Your task to perform on an android device: turn off smart reply in the gmail app Image 0: 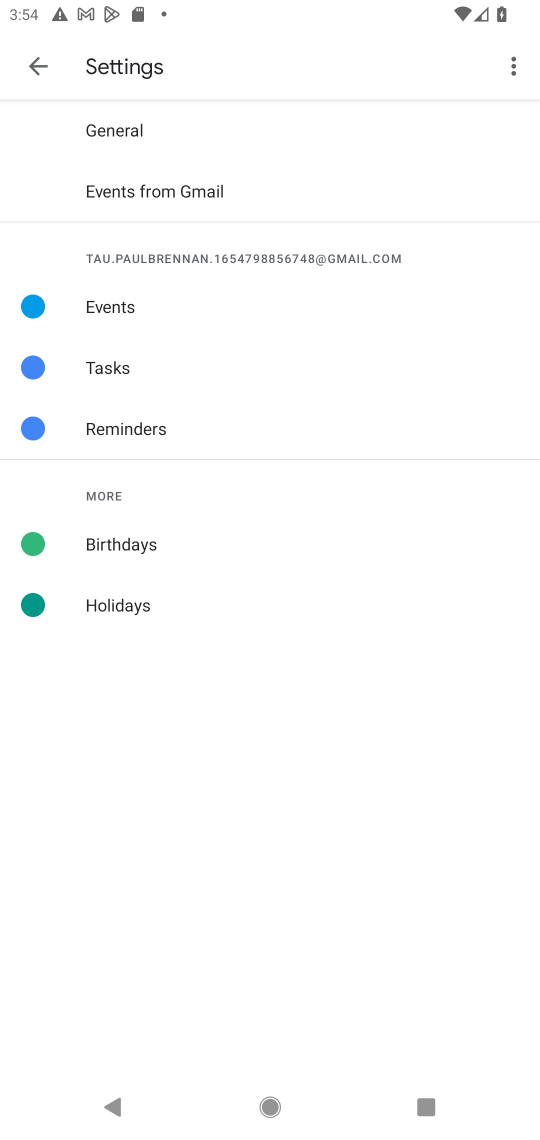
Step 0: press home button
Your task to perform on an android device: turn off smart reply in the gmail app Image 1: 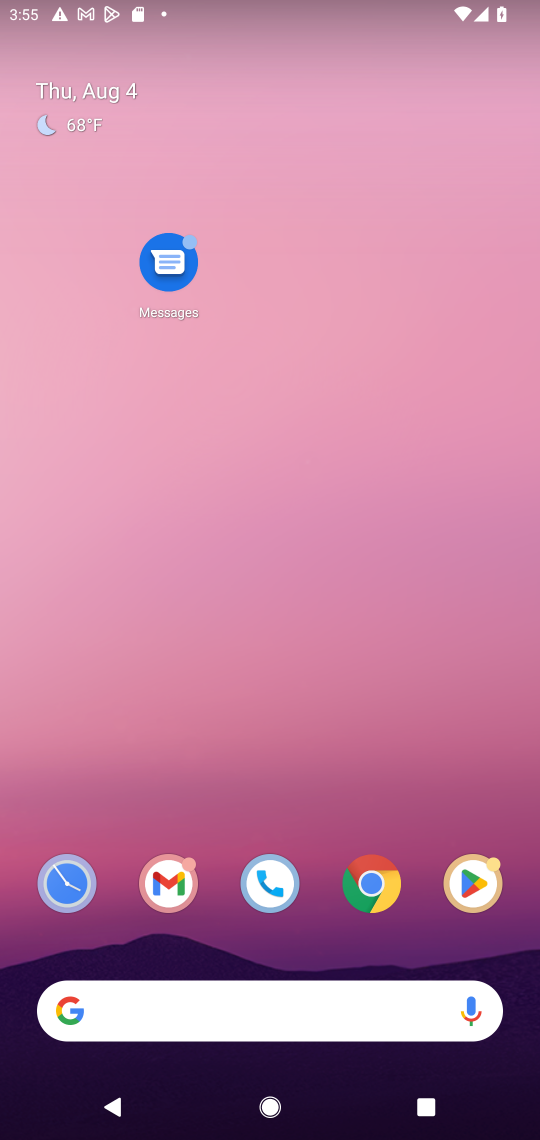
Step 1: drag from (298, 968) to (301, 82)
Your task to perform on an android device: turn off smart reply in the gmail app Image 2: 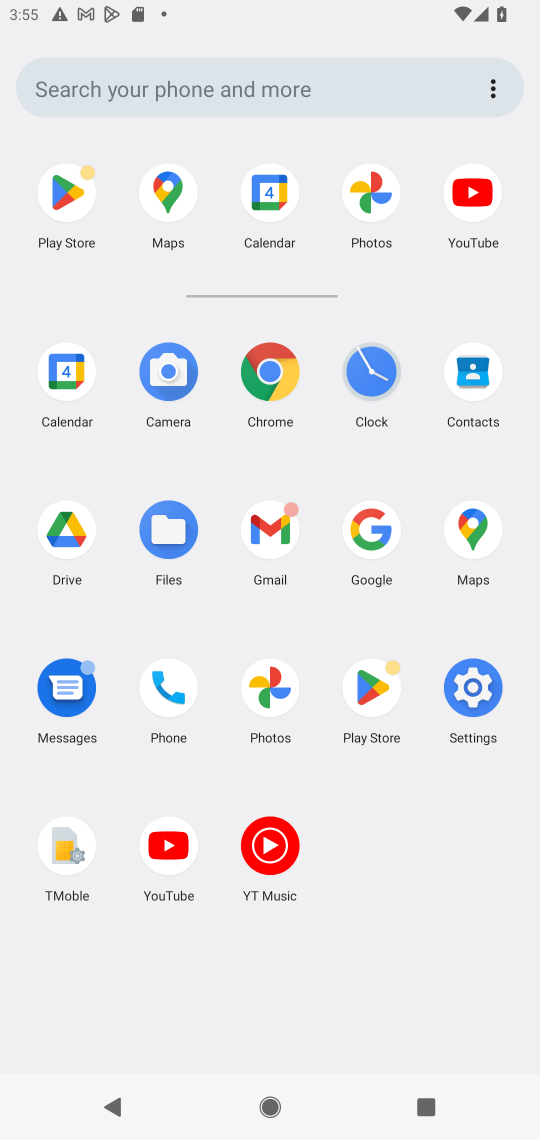
Step 2: click (271, 533)
Your task to perform on an android device: turn off smart reply in the gmail app Image 3: 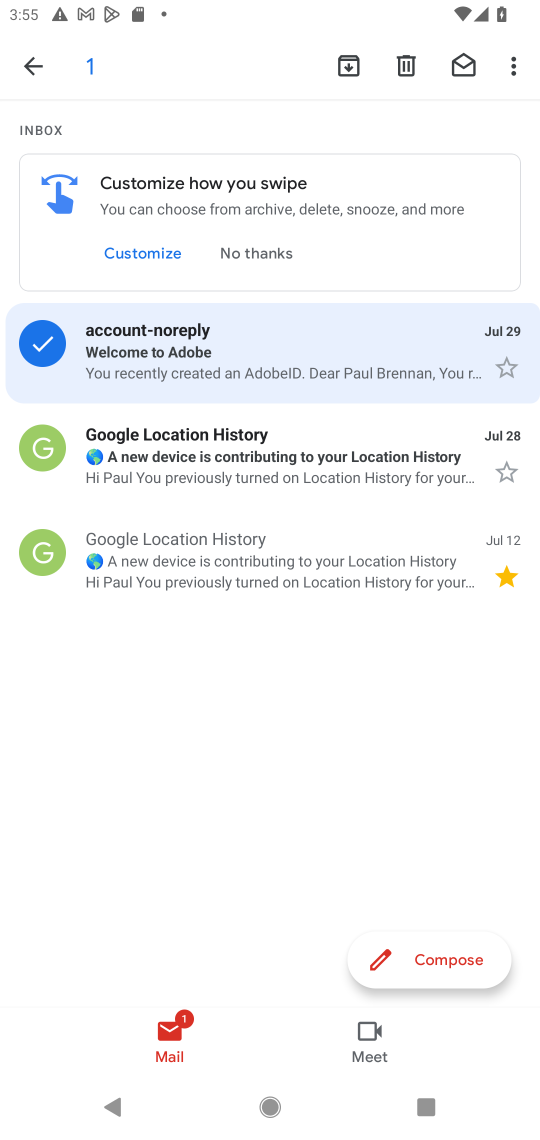
Step 3: click (31, 58)
Your task to perform on an android device: turn off smart reply in the gmail app Image 4: 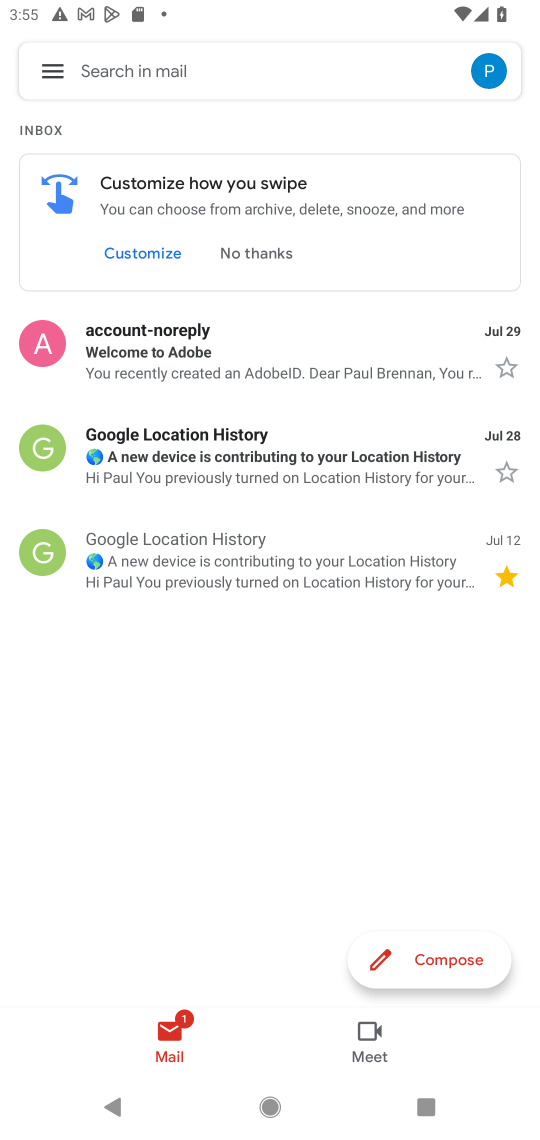
Step 4: click (54, 73)
Your task to perform on an android device: turn off smart reply in the gmail app Image 5: 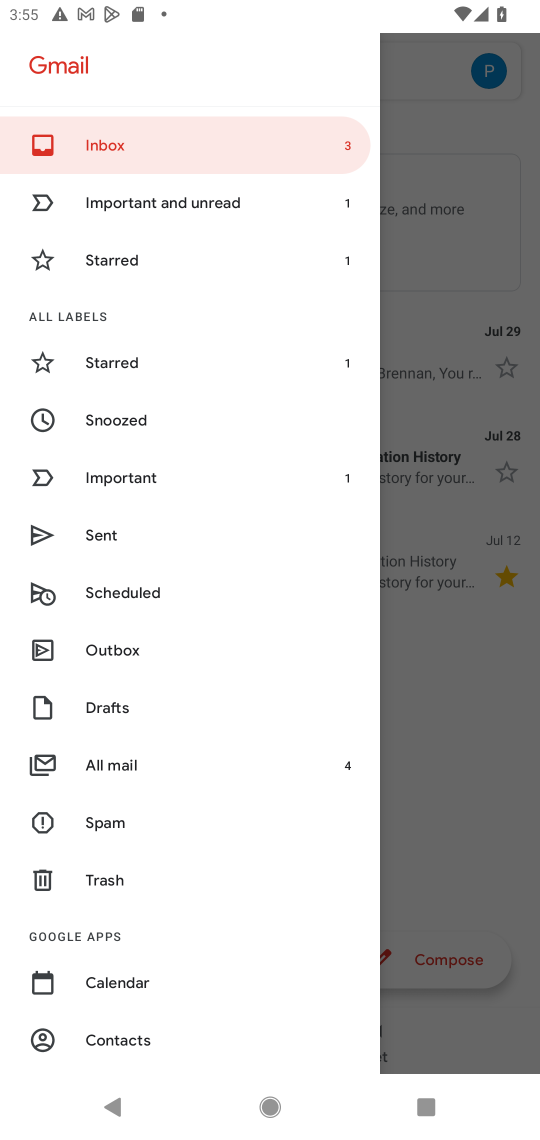
Step 5: drag from (145, 997) to (145, 587)
Your task to perform on an android device: turn off smart reply in the gmail app Image 6: 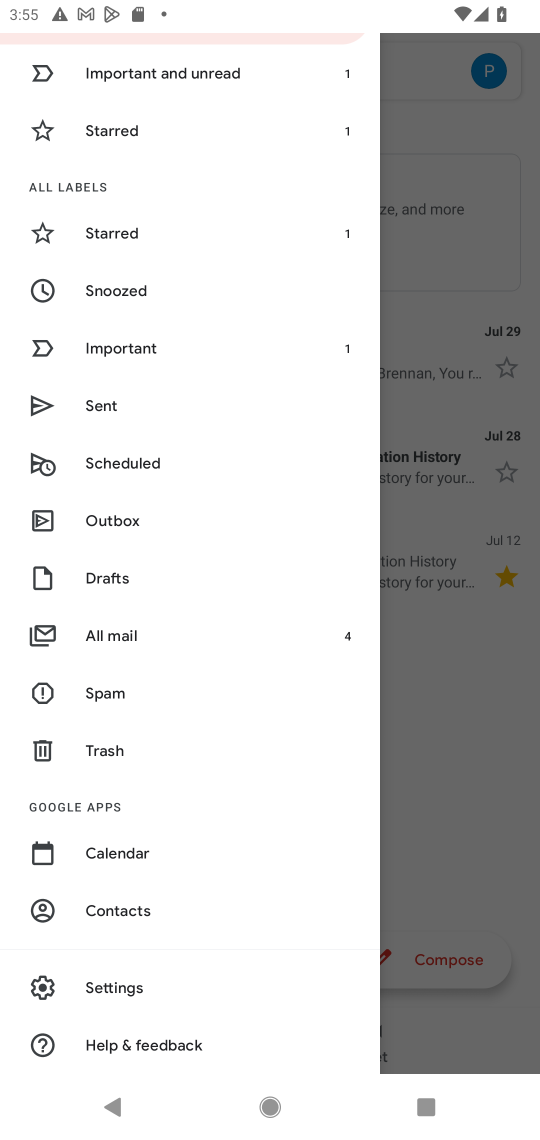
Step 6: click (120, 988)
Your task to perform on an android device: turn off smart reply in the gmail app Image 7: 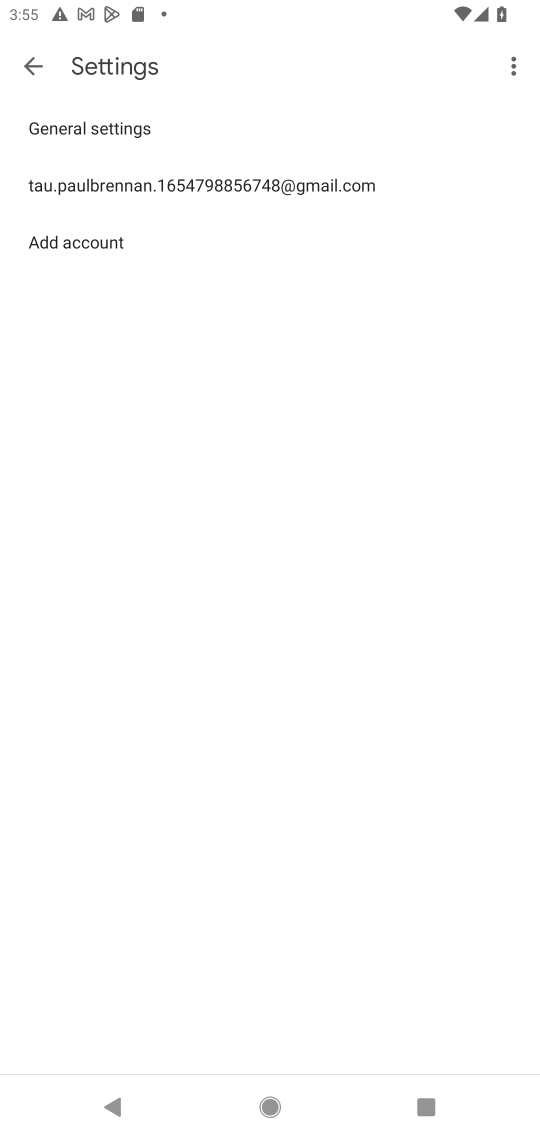
Step 7: click (223, 183)
Your task to perform on an android device: turn off smart reply in the gmail app Image 8: 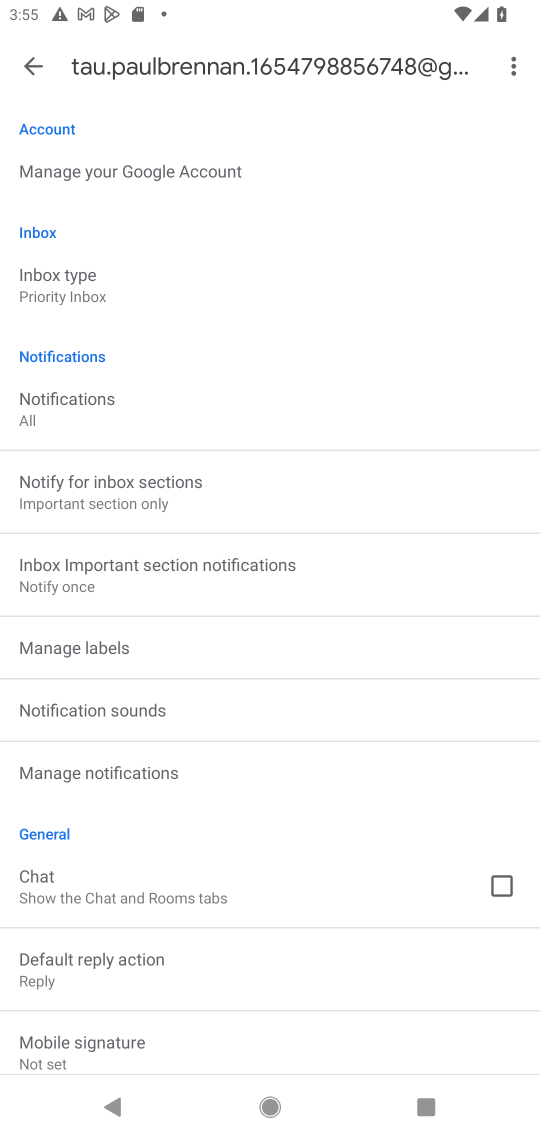
Step 8: drag from (299, 1027) to (317, 738)
Your task to perform on an android device: turn off smart reply in the gmail app Image 9: 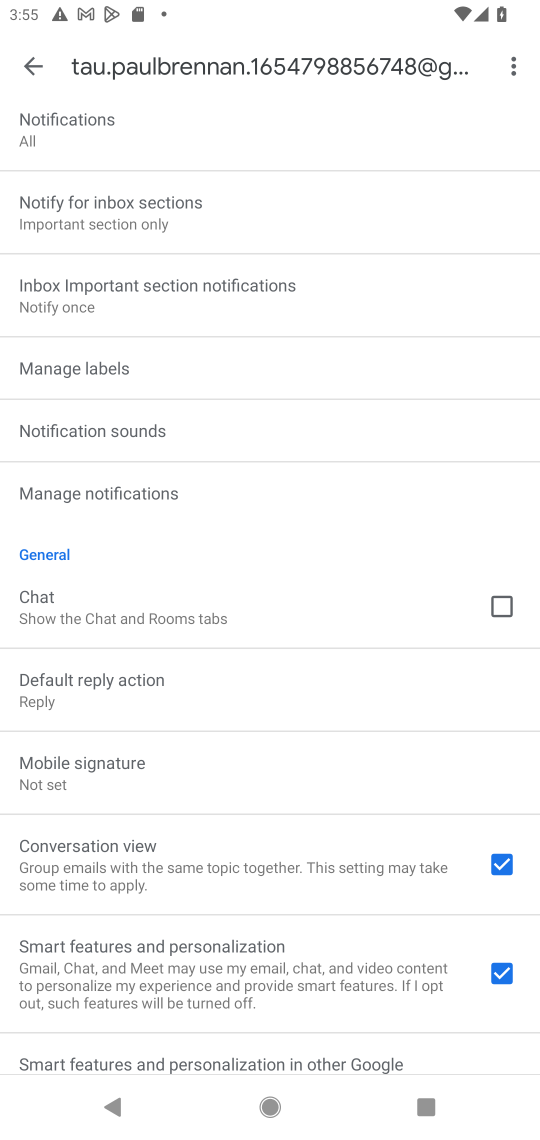
Step 9: drag from (265, 995) to (300, 576)
Your task to perform on an android device: turn off smart reply in the gmail app Image 10: 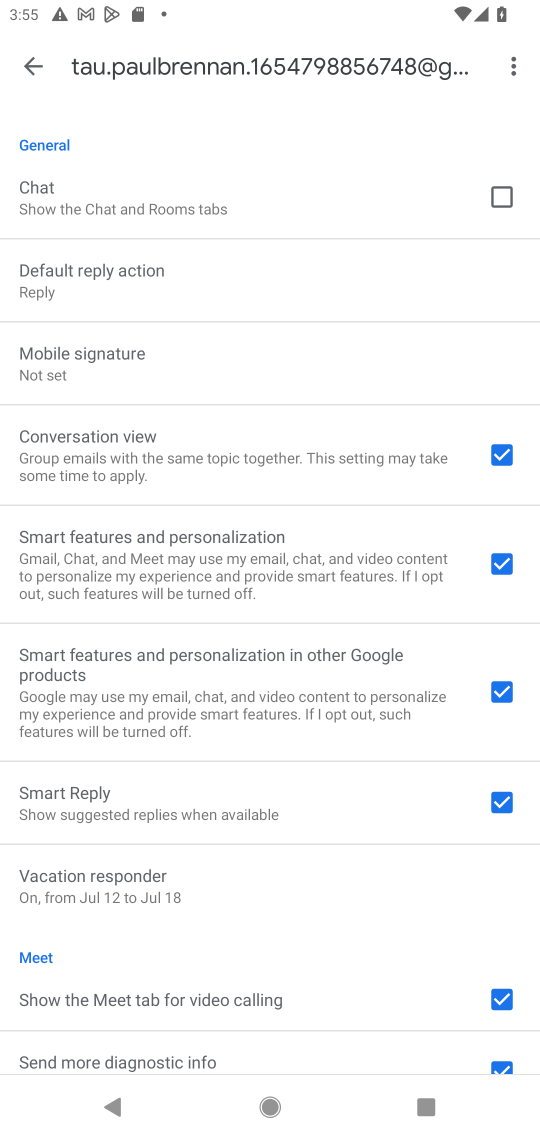
Step 10: click (504, 800)
Your task to perform on an android device: turn off smart reply in the gmail app Image 11: 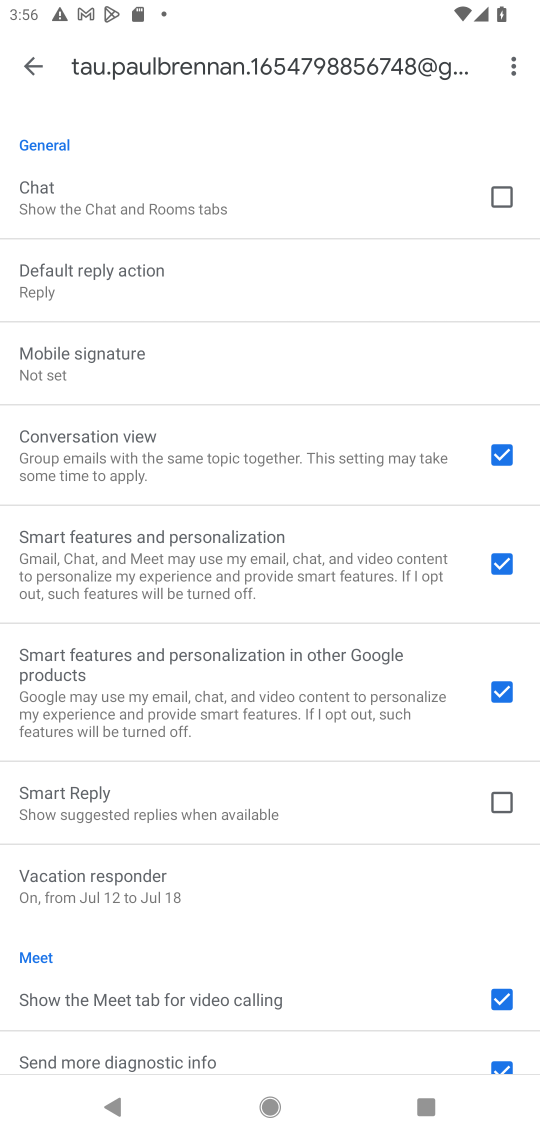
Step 11: task complete